Your task to perform on an android device: toggle wifi Image 0: 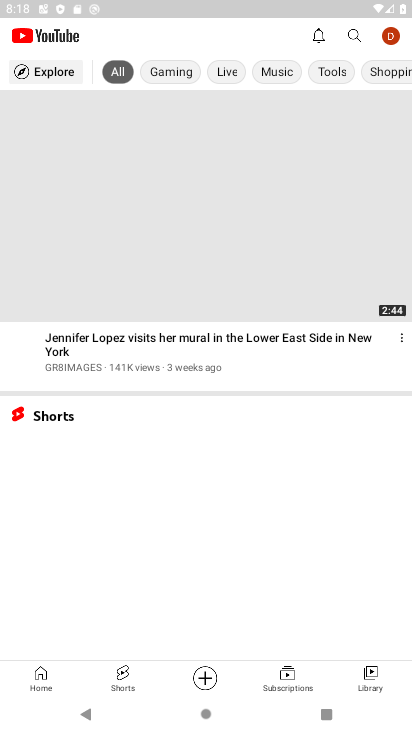
Step 0: press home button
Your task to perform on an android device: toggle wifi Image 1: 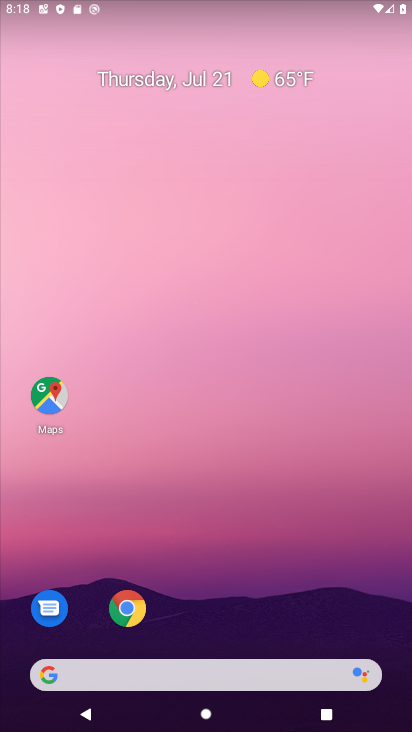
Step 1: drag from (191, 674) to (195, 204)
Your task to perform on an android device: toggle wifi Image 2: 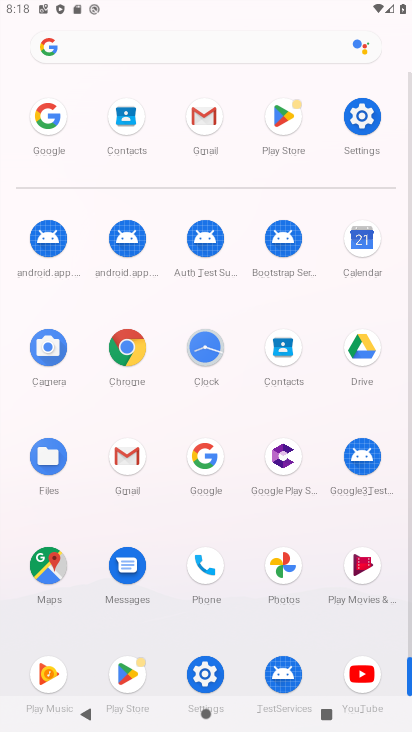
Step 2: click (361, 118)
Your task to perform on an android device: toggle wifi Image 3: 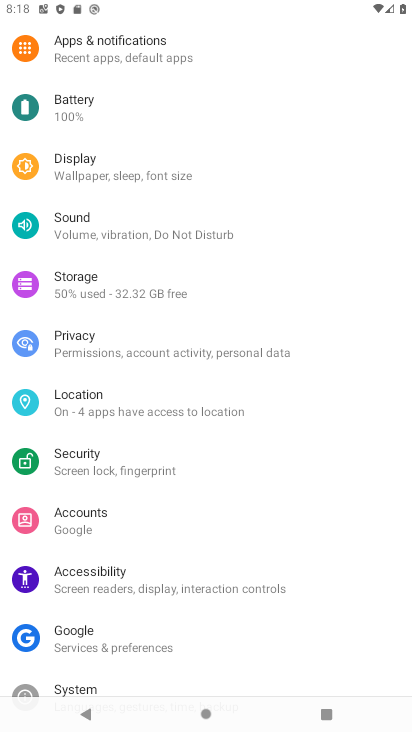
Step 3: drag from (163, 144) to (159, 516)
Your task to perform on an android device: toggle wifi Image 4: 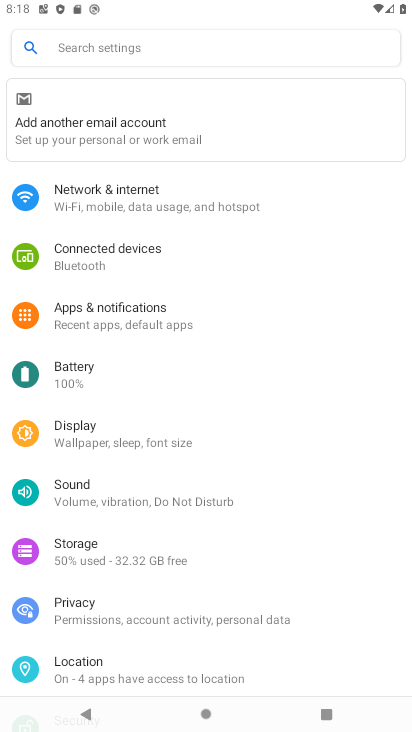
Step 4: click (167, 205)
Your task to perform on an android device: toggle wifi Image 5: 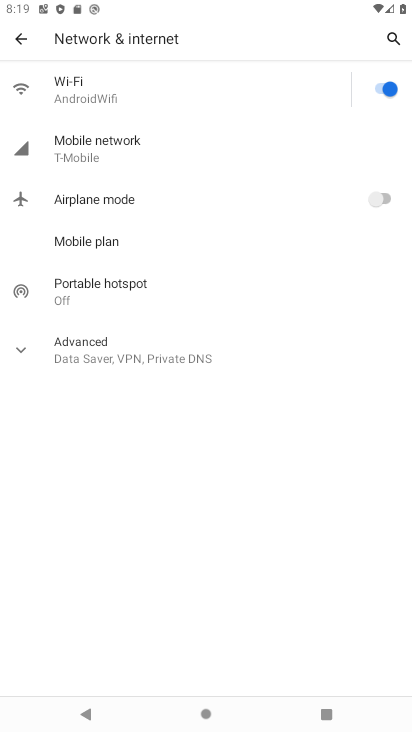
Step 5: click (379, 89)
Your task to perform on an android device: toggle wifi Image 6: 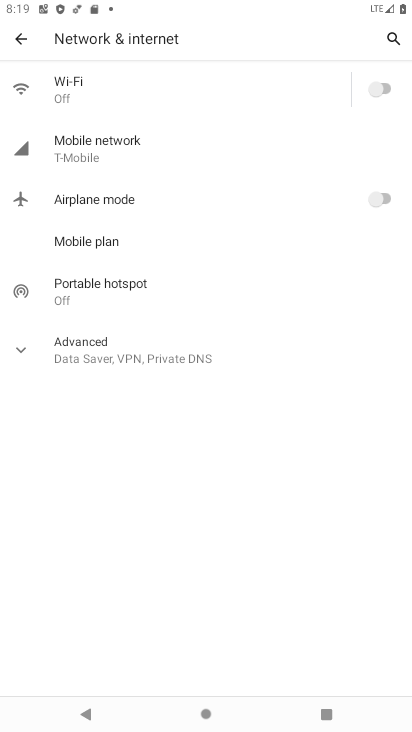
Step 6: task complete